Your task to perform on an android device: What's the weather today? Image 0: 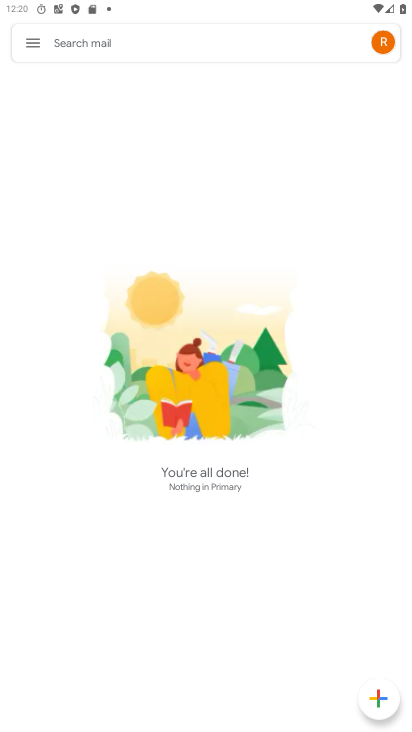
Step 0: press home button
Your task to perform on an android device: What's the weather today? Image 1: 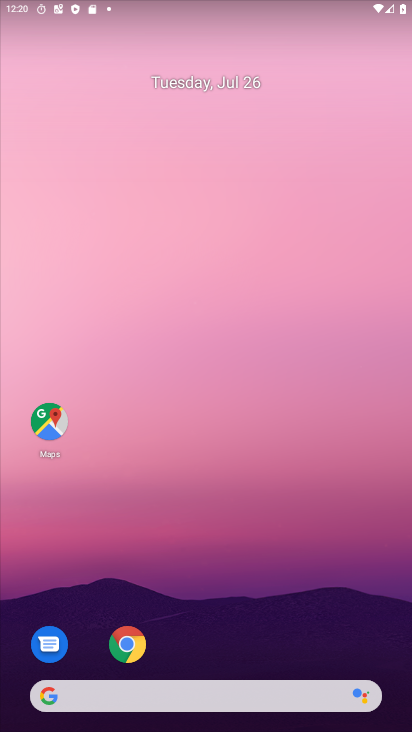
Step 1: drag from (243, 572) to (336, 25)
Your task to perform on an android device: What's the weather today? Image 2: 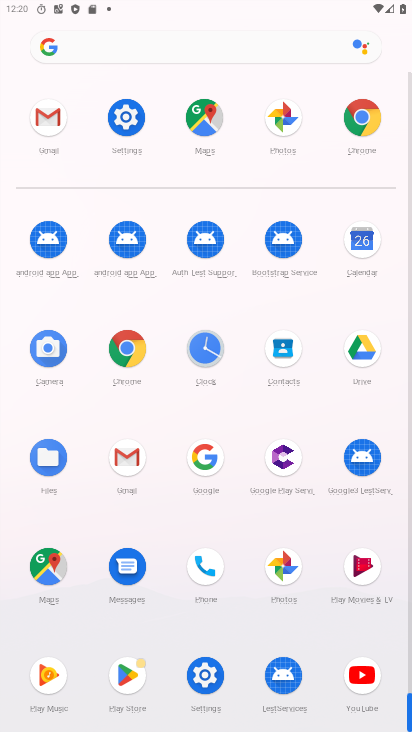
Step 2: click (194, 463)
Your task to perform on an android device: What's the weather today? Image 3: 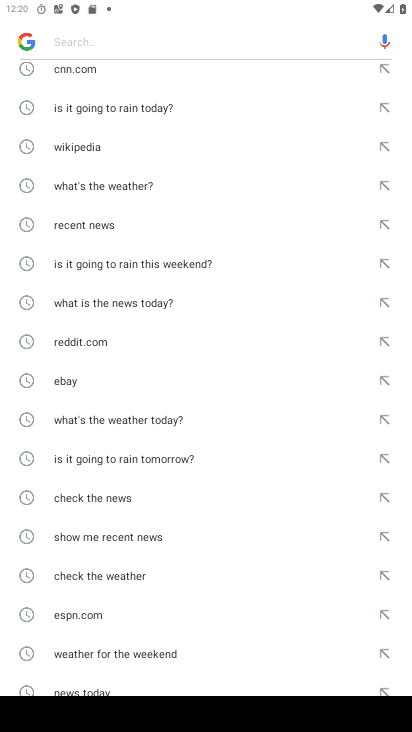
Step 3: drag from (93, 129) to (184, 529)
Your task to perform on an android device: What's the weather today? Image 4: 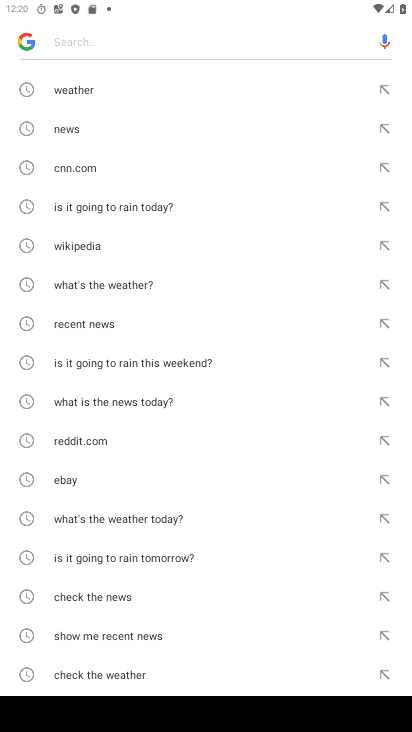
Step 4: click (81, 91)
Your task to perform on an android device: What's the weather today? Image 5: 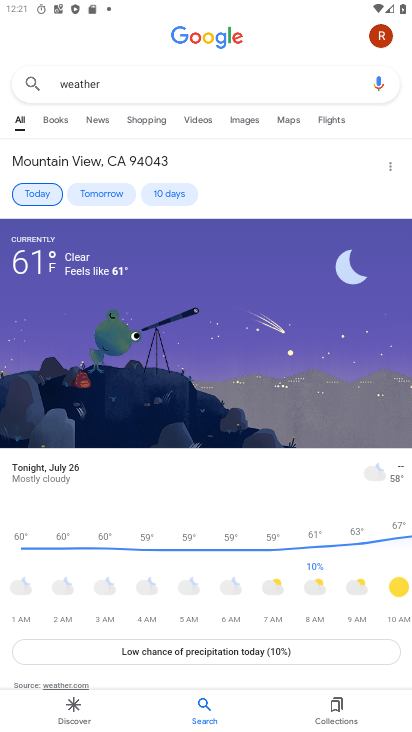
Step 5: task complete